Your task to perform on an android device: Is it going to rain today? Image 0: 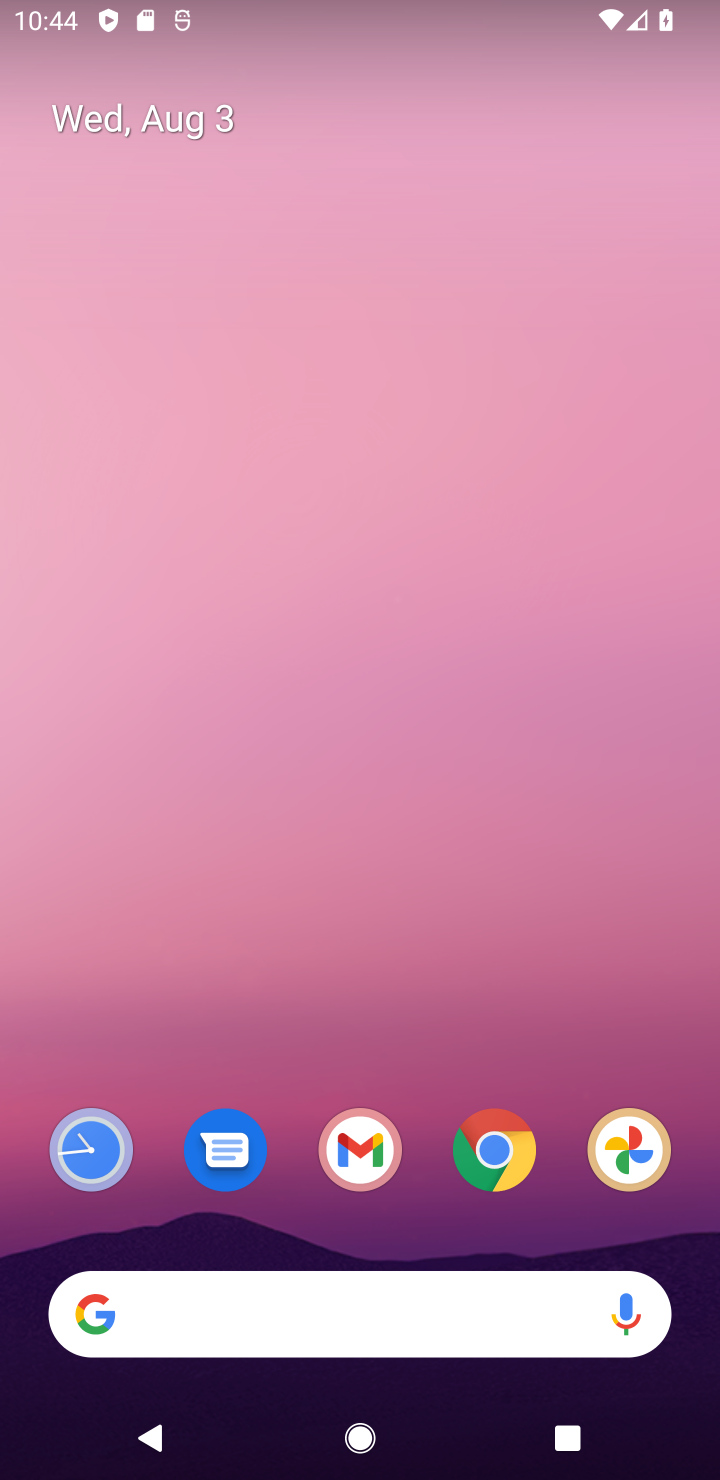
Step 0: click (520, 1320)
Your task to perform on an android device: Is it going to rain today? Image 1: 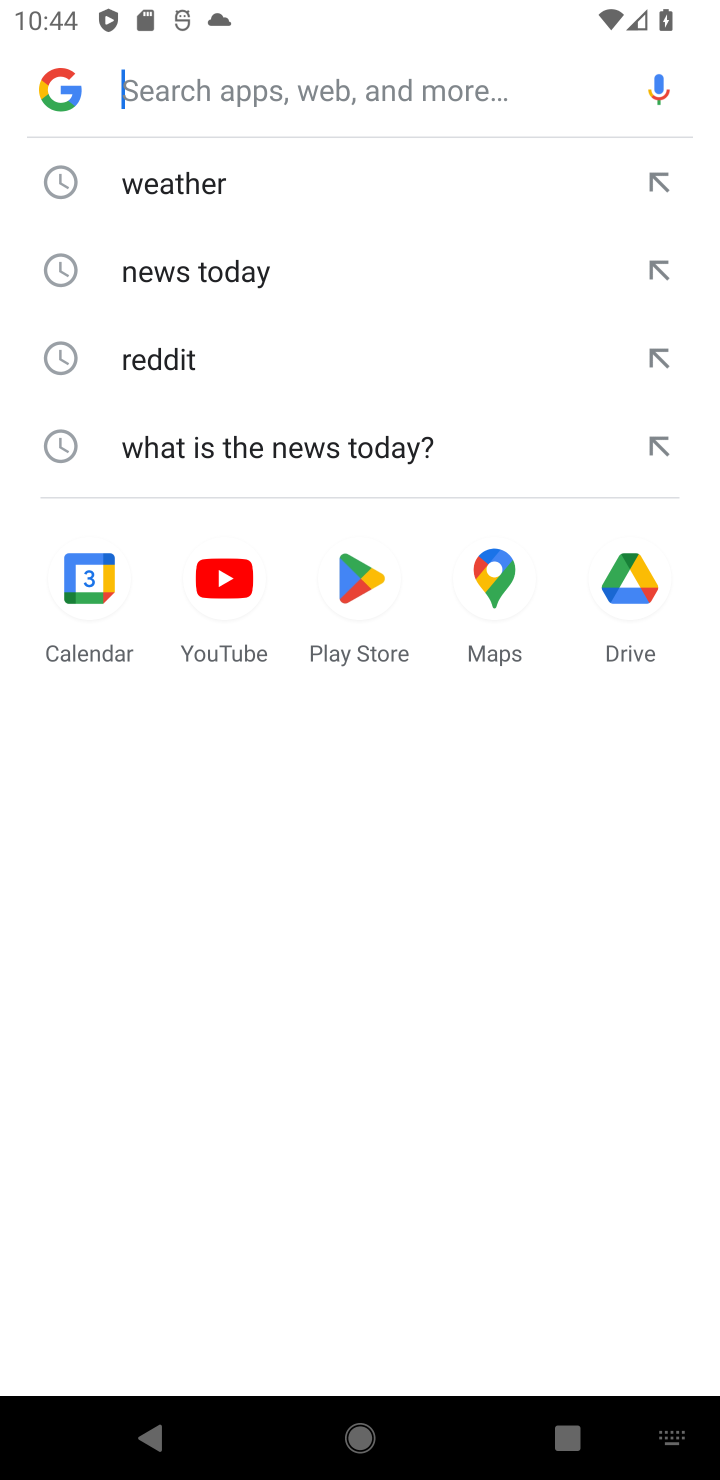
Step 1: click (214, 185)
Your task to perform on an android device: Is it going to rain today? Image 2: 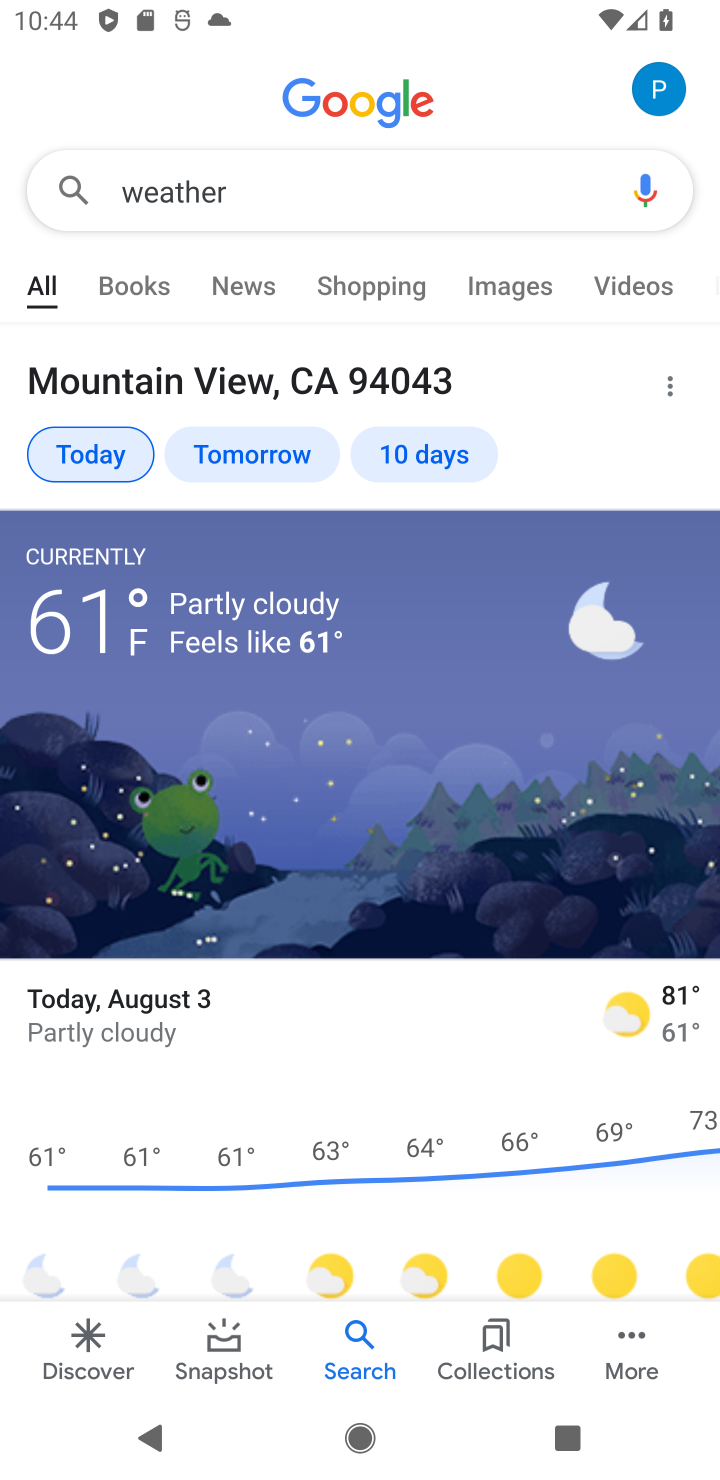
Step 2: task complete